Your task to perform on an android device: Open accessibility settings Image 0: 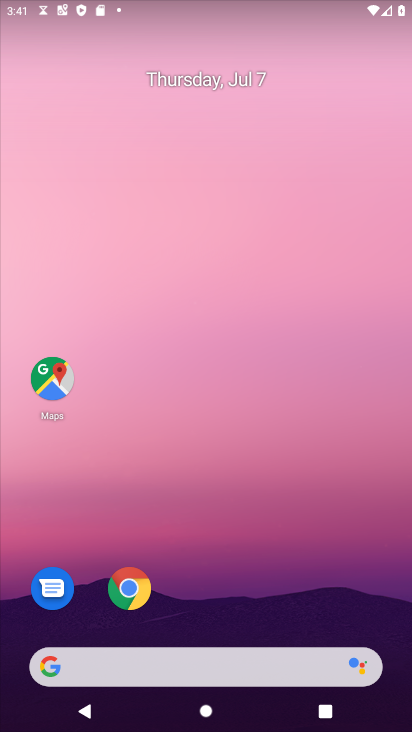
Step 0: drag from (275, 613) to (253, 137)
Your task to perform on an android device: Open accessibility settings Image 1: 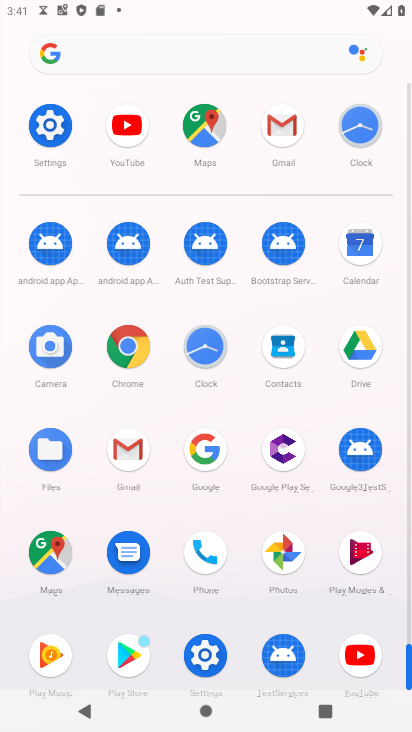
Step 1: click (49, 123)
Your task to perform on an android device: Open accessibility settings Image 2: 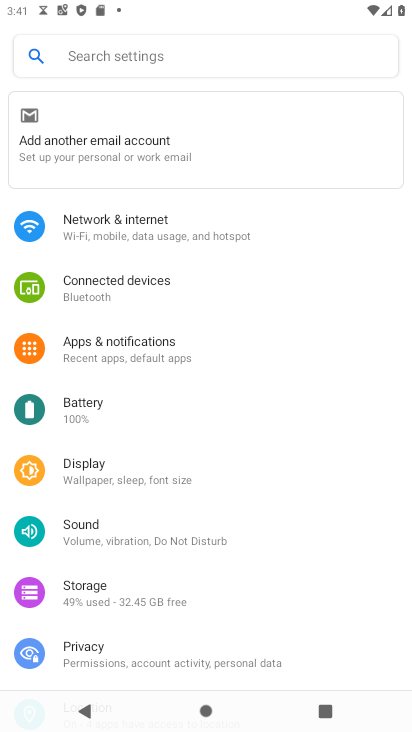
Step 2: drag from (122, 431) to (199, 334)
Your task to perform on an android device: Open accessibility settings Image 3: 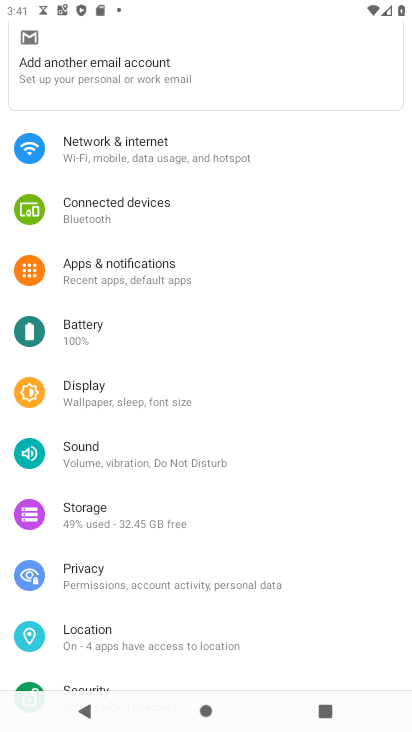
Step 3: drag from (143, 541) to (258, 420)
Your task to perform on an android device: Open accessibility settings Image 4: 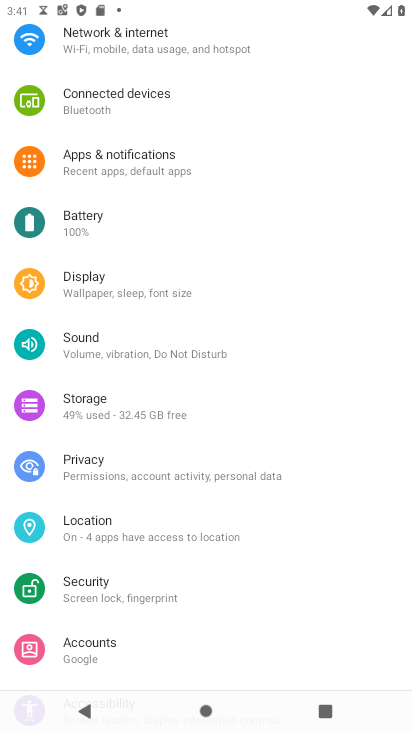
Step 4: drag from (140, 565) to (266, 427)
Your task to perform on an android device: Open accessibility settings Image 5: 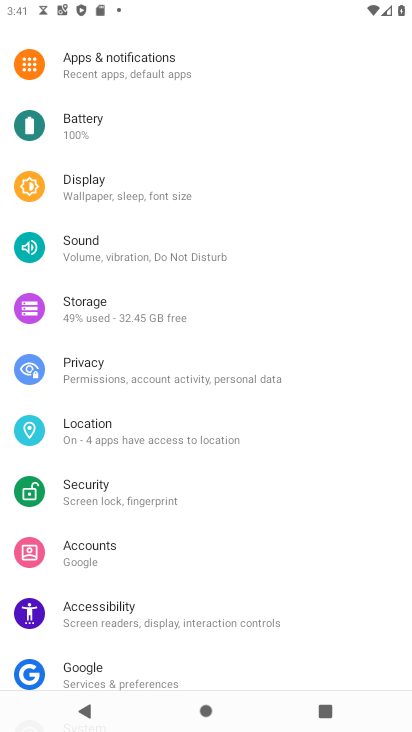
Step 5: click (119, 611)
Your task to perform on an android device: Open accessibility settings Image 6: 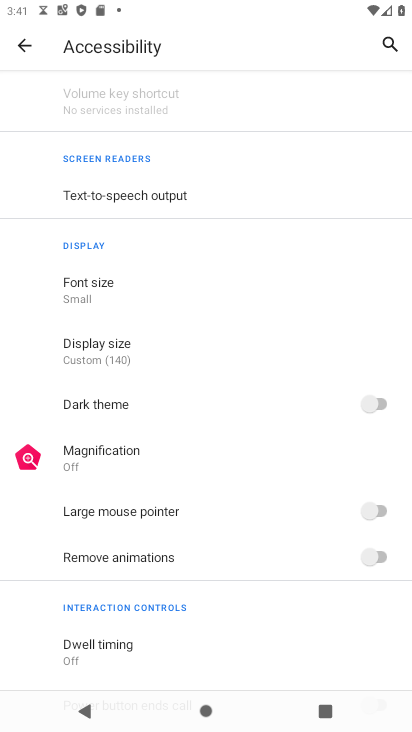
Step 6: task complete